Your task to perform on an android device: Is it going to rain tomorrow? Image 0: 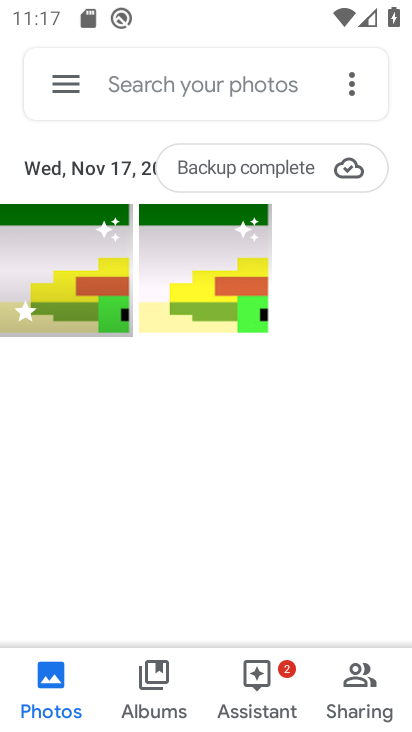
Step 0: press home button
Your task to perform on an android device: Is it going to rain tomorrow? Image 1: 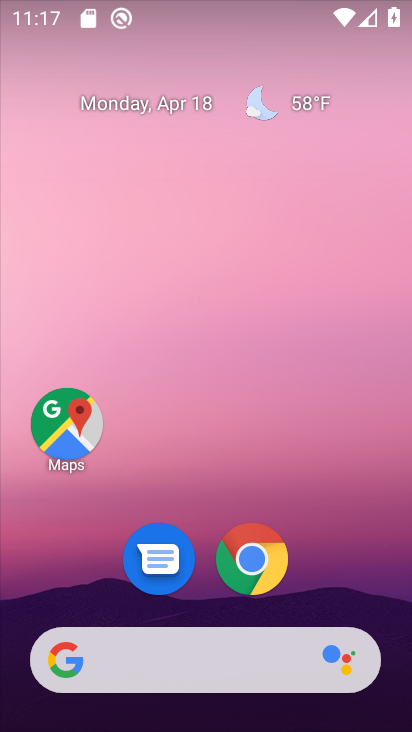
Step 1: drag from (330, 582) to (352, 207)
Your task to perform on an android device: Is it going to rain tomorrow? Image 2: 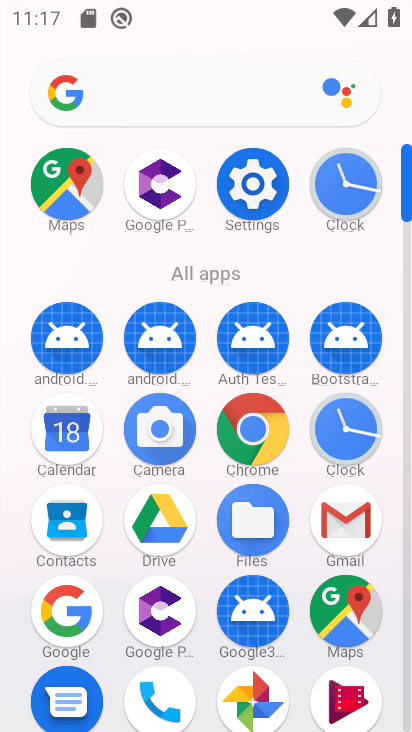
Step 2: click (268, 423)
Your task to perform on an android device: Is it going to rain tomorrow? Image 3: 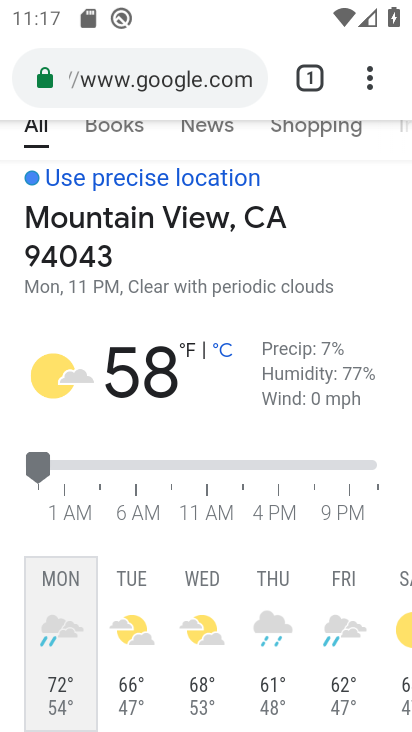
Step 3: click (310, 74)
Your task to perform on an android device: Is it going to rain tomorrow? Image 4: 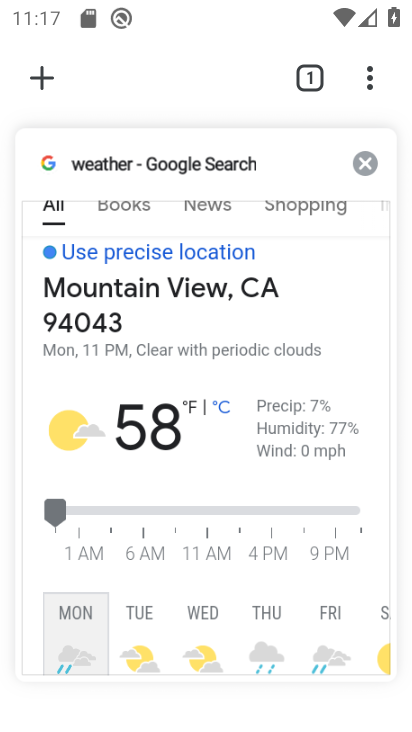
Step 4: click (46, 75)
Your task to perform on an android device: Is it going to rain tomorrow? Image 5: 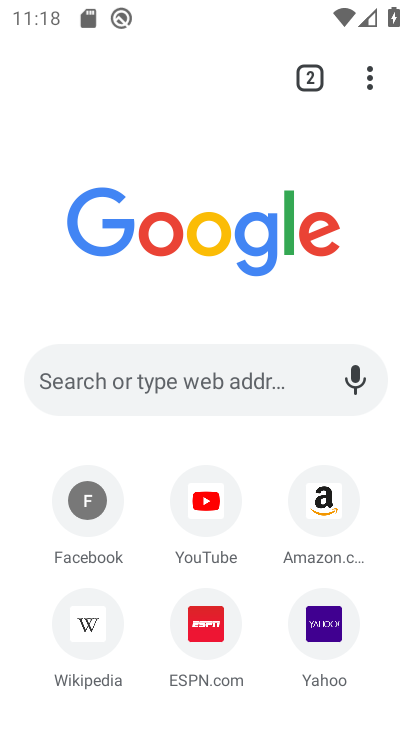
Step 5: click (185, 392)
Your task to perform on an android device: Is it going to rain tomorrow? Image 6: 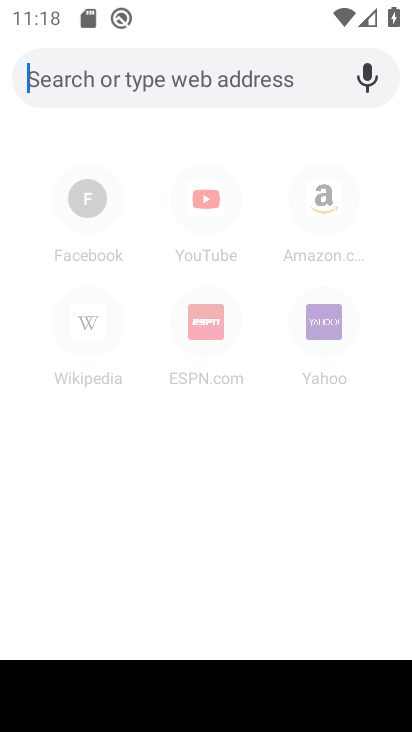
Step 6: type "is i going to rain tomorrow"
Your task to perform on an android device: Is it going to rain tomorrow? Image 7: 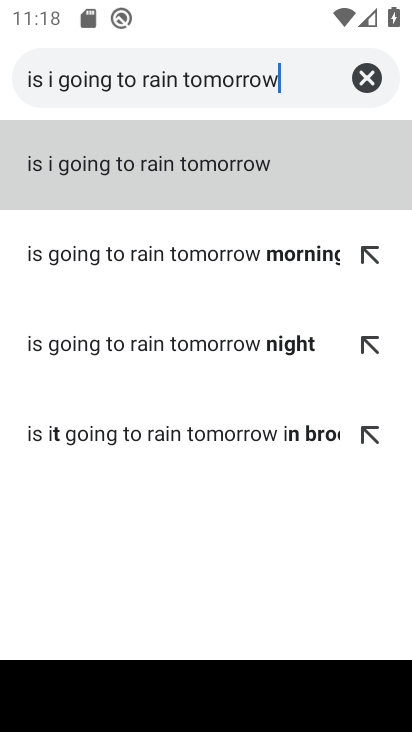
Step 7: click (167, 168)
Your task to perform on an android device: Is it going to rain tomorrow? Image 8: 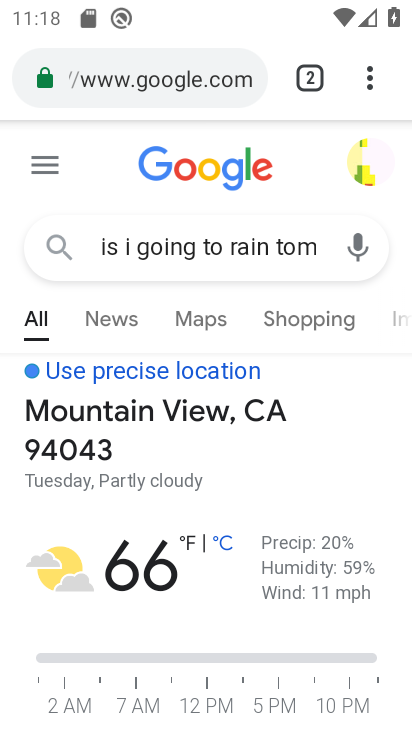
Step 8: task complete